Your task to perform on an android device: choose inbox layout in the gmail app Image 0: 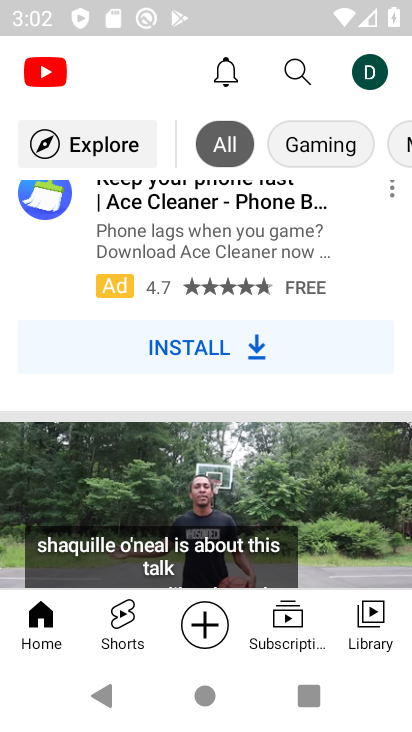
Step 0: press back button
Your task to perform on an android device: choose inbox layout in the gmail app Image 1: 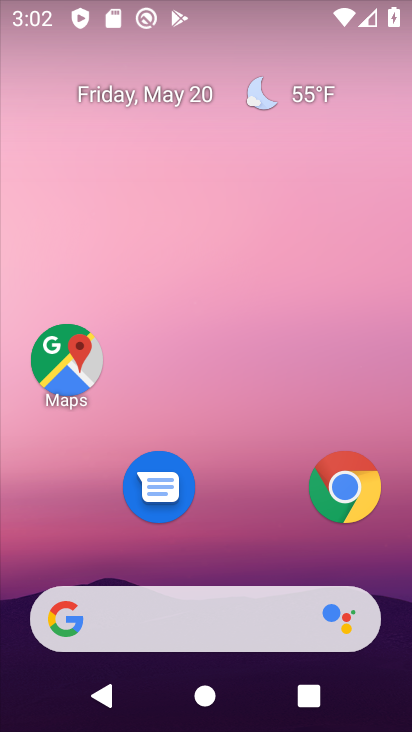
Step 1: drag from (251, 657) to (236, 264)
Your task to perform on an android device: choose inbox layout in the gmail app Image 2: 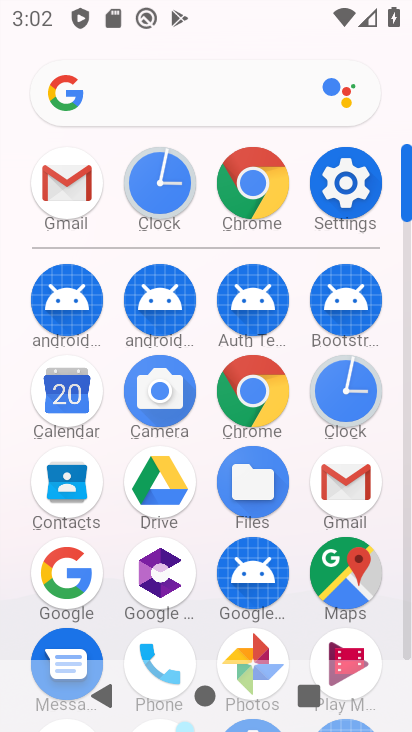
Step 2: click (342, 480)
Your task to perform on an android device: choose inbox layout in the gmail app Image 3: 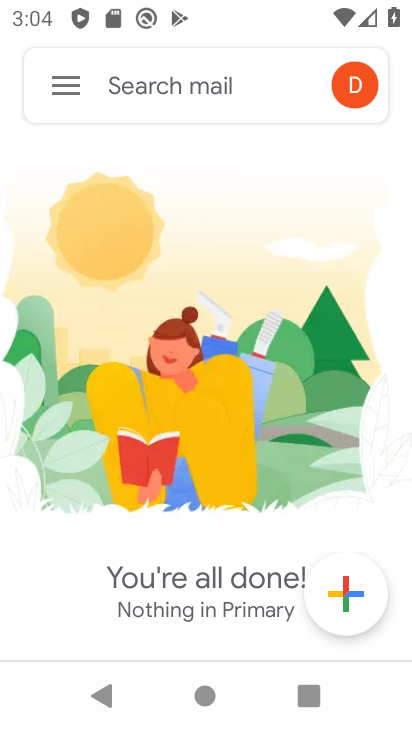
Step 3: click (57, 89)
Your task to perform on an android device: choose inbox layout in the gmail app Image 4: 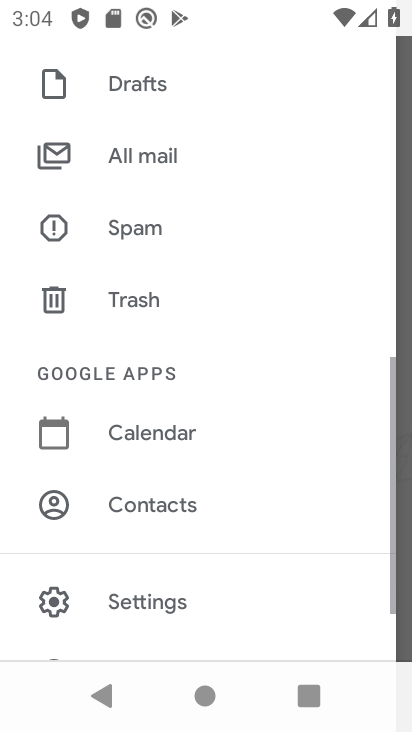
Step 4: click (68, 88)
Your task to perform on an android device: choose inbox layout in the gmail app Image 5: 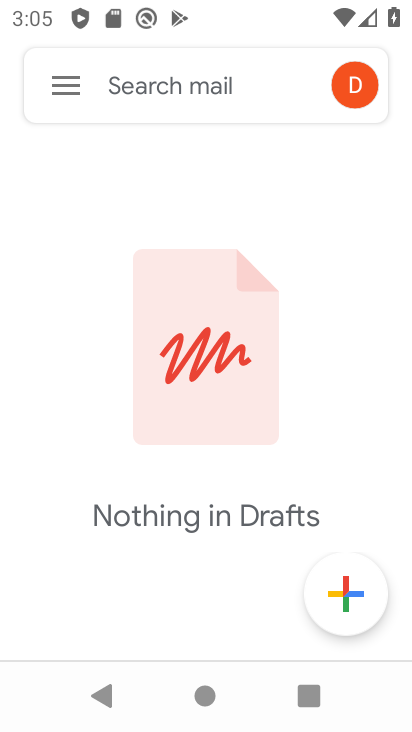
Step 5: press back button
Your task to perform on an android device: choose inbox layout in the gmail app Image 6: 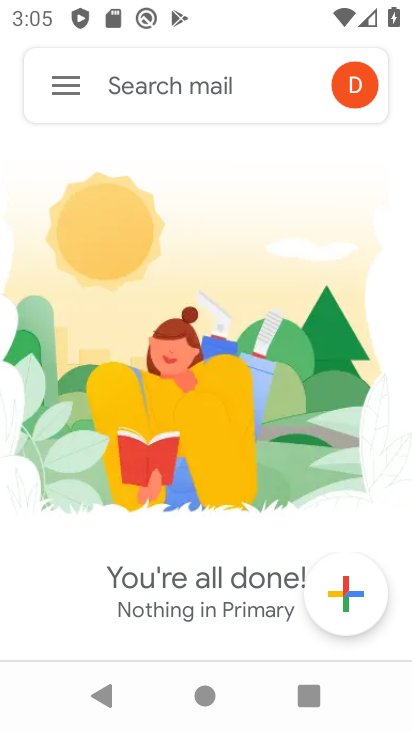
Step 6: drag from (245, 561) to (181, 17)
Your task to perform on an android device: choose inbox layout in the gmail app Image 7: 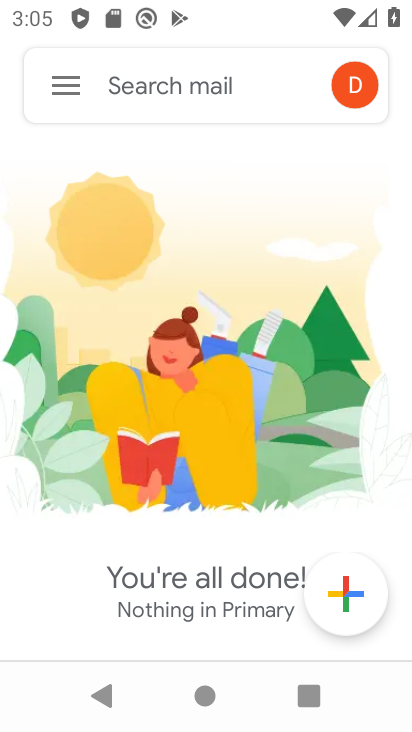
Step 7: drag from (194, 550) to (133, 116)
Your task to perform on an android device: choose inbox layout in the gmail app Image 8: 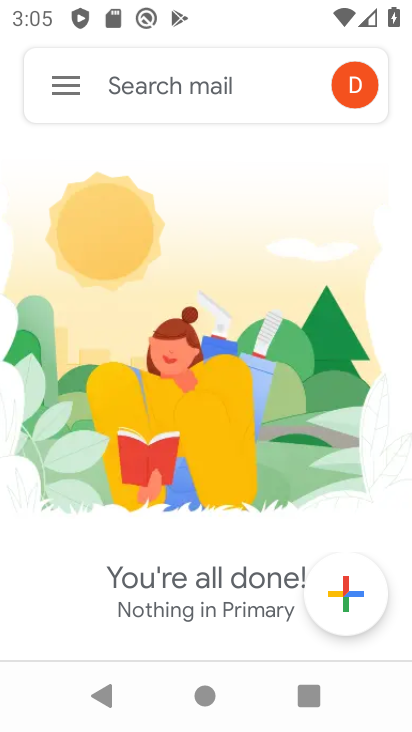
Step 8: click (60, 73)
Your task to perform on an android device: choose inbox layout in the gmail app Image 9: 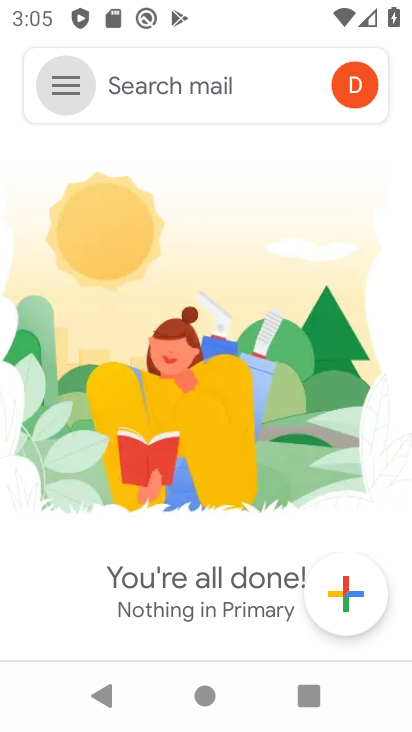
Step 9: click (64, 80)
Your task to perform on an android device: choose inbox layout in the gmail app Image 10: 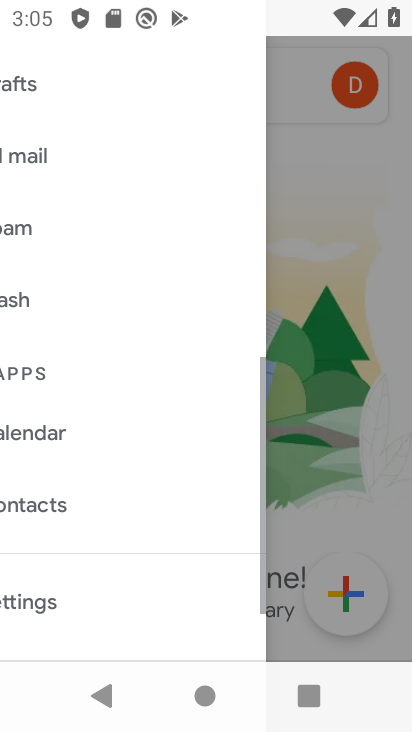
Step 10: click (64, 83)
Your task to perform on an android device: choose inbox layout in the gmail app Image 11: 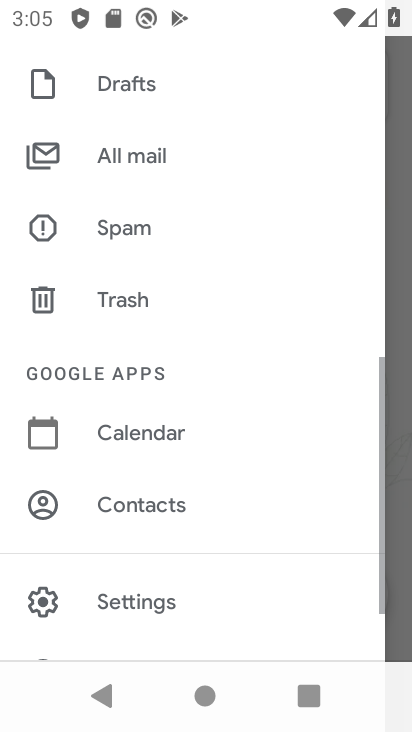
Step 11: click (64, 87)
Your task to perform on an android device: choose inbox layout in the gmail app Image 12: 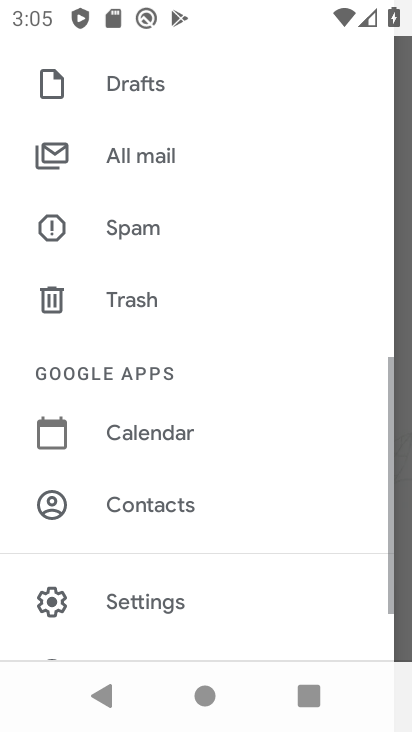
Step 12: click (65, 87)
Your task to perform on an android device: choose inbox layout in the gmail app Image 13: 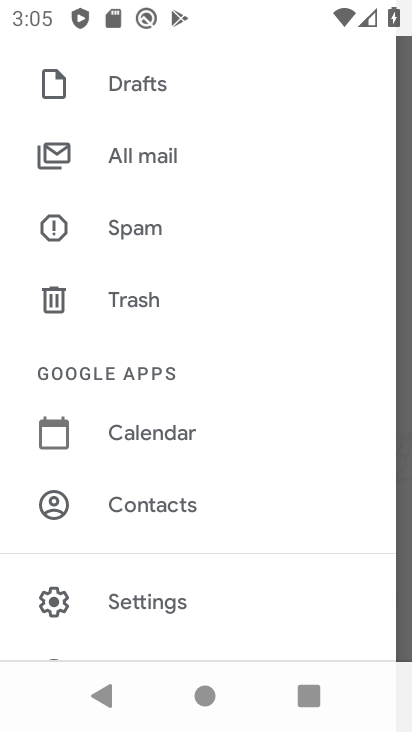
Step 13: click (404, 317)
Your task to perform on an android device: choose inbox layout in the gmail app Image 14: 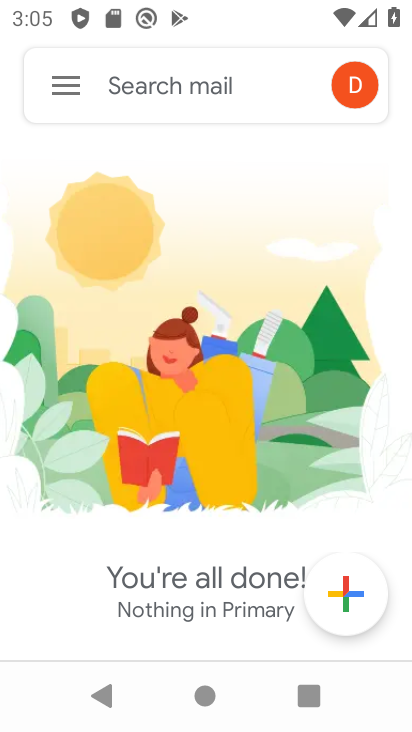
Step 14: click (59, 80)
Your task to perform on an android device: choose inbox layout in the gmail app Image 15: 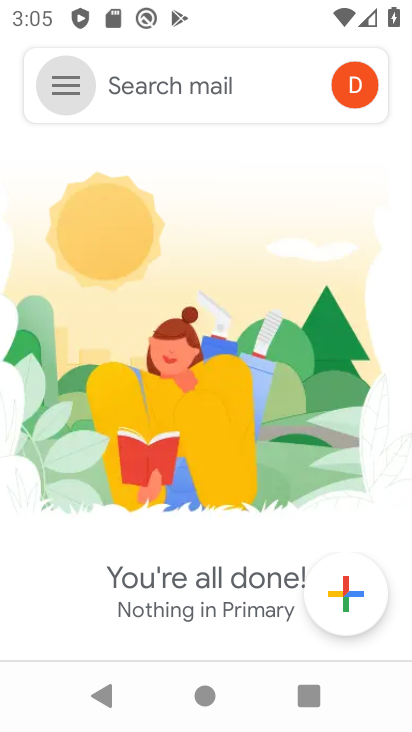
Step 15: click (59, 83)
Your task to perform on an android device: choose inbox layout in the gmail app Image 16: 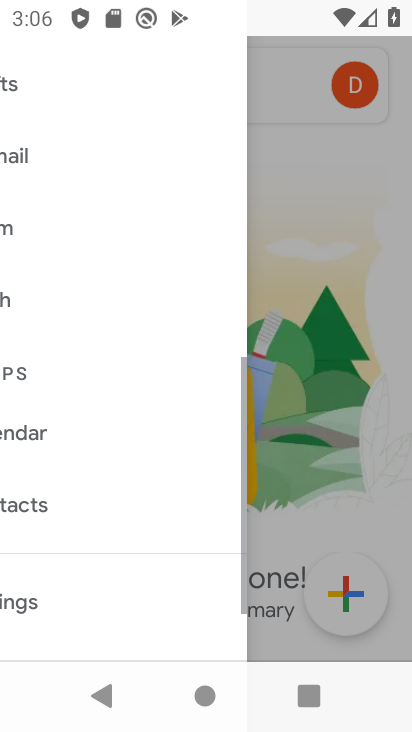
Step 16: click (59, 83)
Your task to perform on an android device: choose inbox layout in the gmail app Image 17: 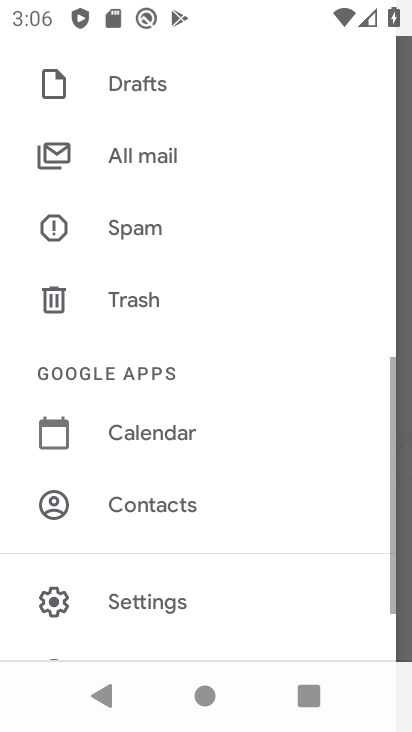
Step 17: click (69, 89)
Your task to perform on an android device: choose inbox layout in the gmail app Image 18: 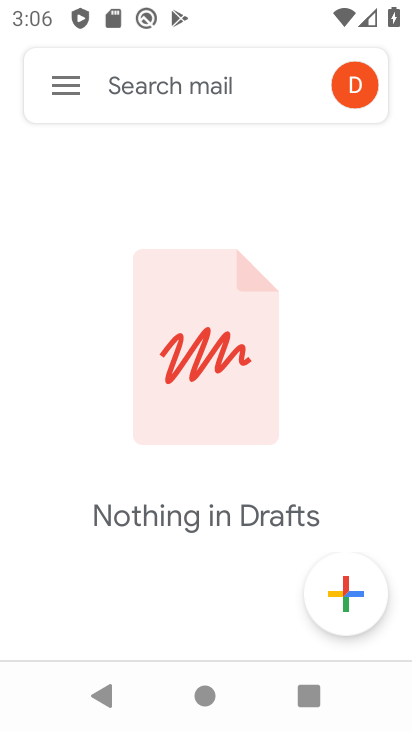
Step 18: click (67, 87)
Your task to perform on an android device: choose inbox layout in the gmail app Image 19: 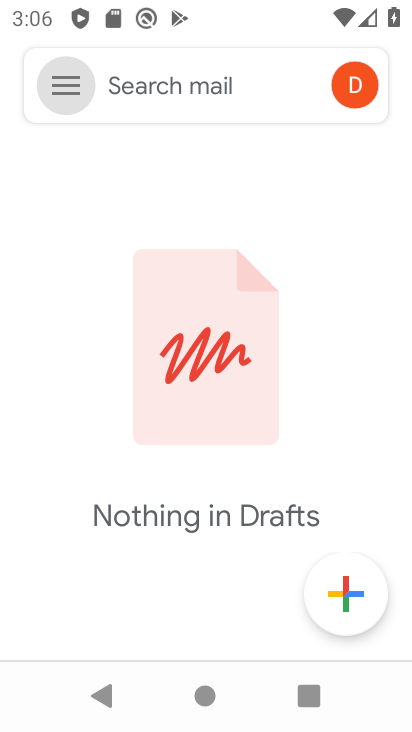
Step 19: click (67, 87)
Your task to perform on an android device: choose inbox layout in the gmail app Image 20: 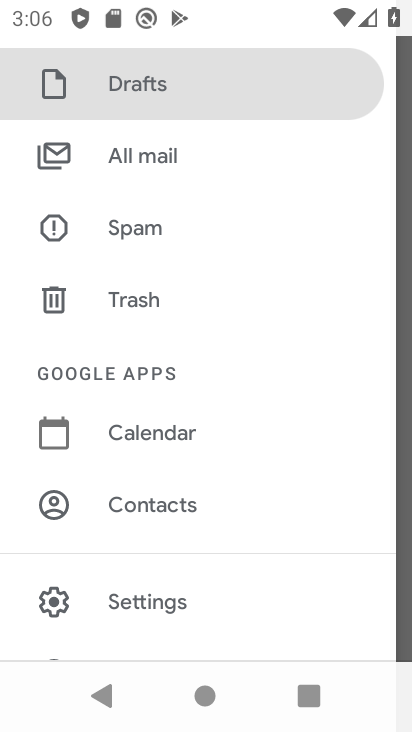
Step 20: click (129, 156)
Your task to perform on an android device: choose inbox layout in the gmail app Image 21: 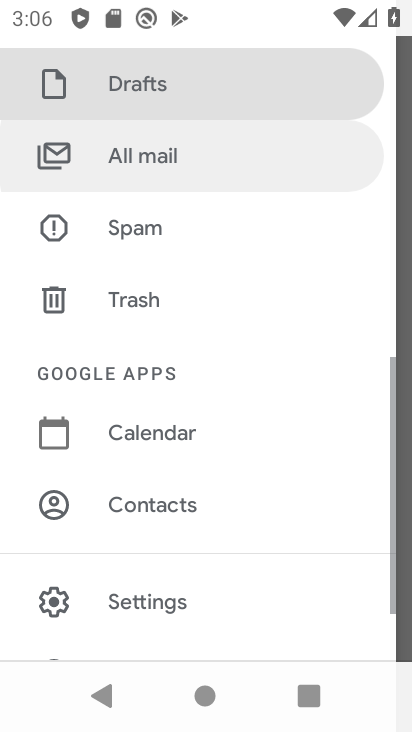
Step 21: click (143, 154)
Your task to perform on an android device: choose inbox layout in the gmail app Image 22: 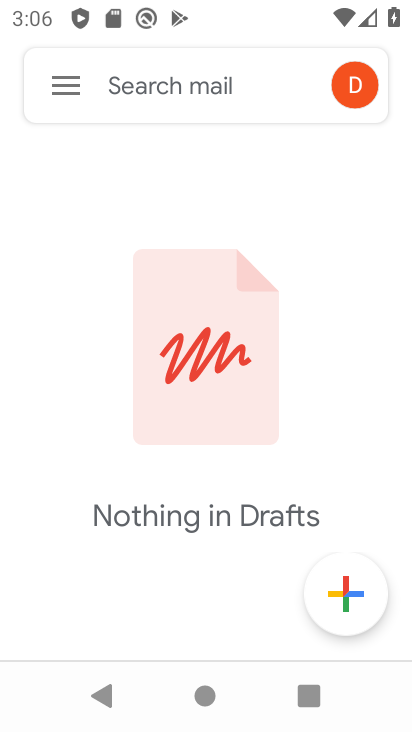
Step 22: click (143, 154)
Your task to perform on an android device: choose inbox layout in the gmail app Image 23: 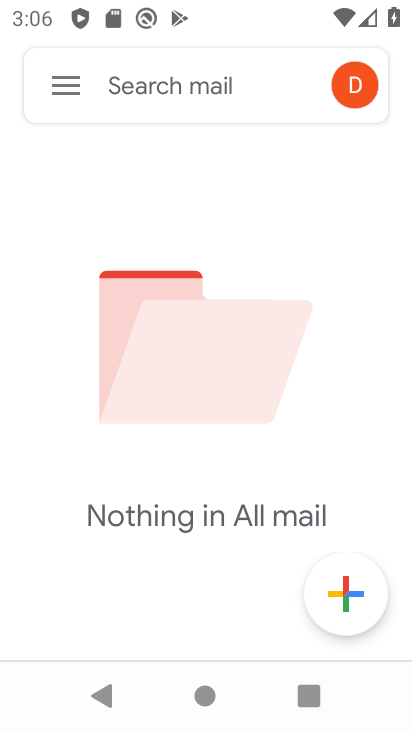
Step 23: task complete